Your task to perform on an android device: set the timer Image 0: 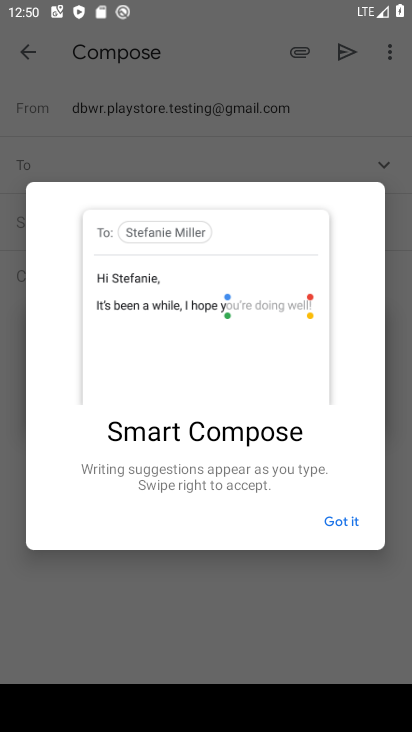
Step 0: press home button
Your task to perform on an android device: set the timer Image 1: 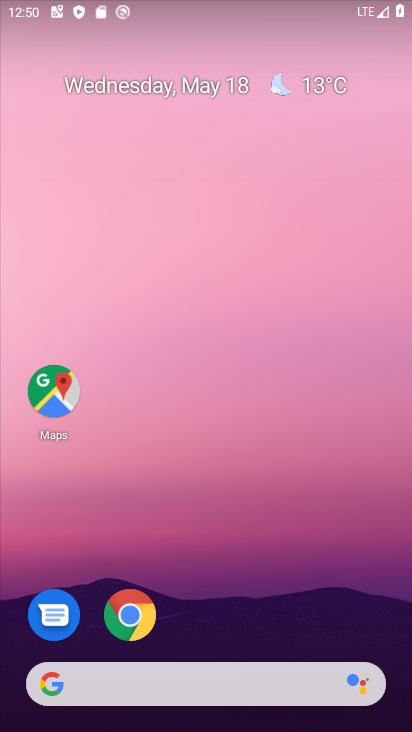
Step 1: drag from (190, 687) to (317, 193)
Your task to perform on an android device: set the timer Image 2: 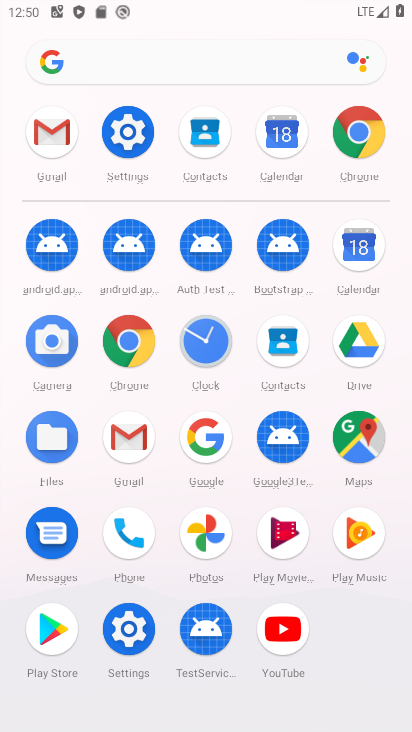
Step 2: click (203, 349)
Your task to perform on an android device: set the timer Image 3: 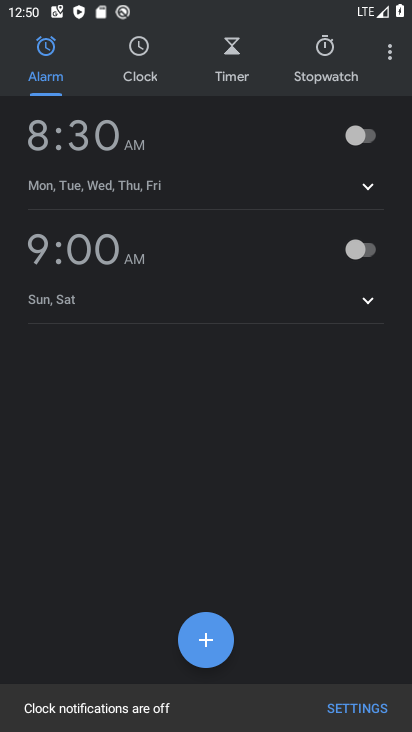
Step 3: click (235, 61)
Your task to perform on an android device: set the timer Image 4: 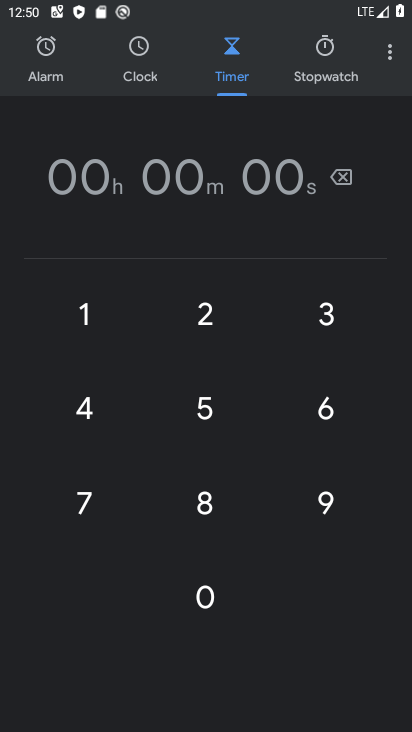
Step 4: click (202, 500)
Your task to perform on an android device: set the timer Image 5: 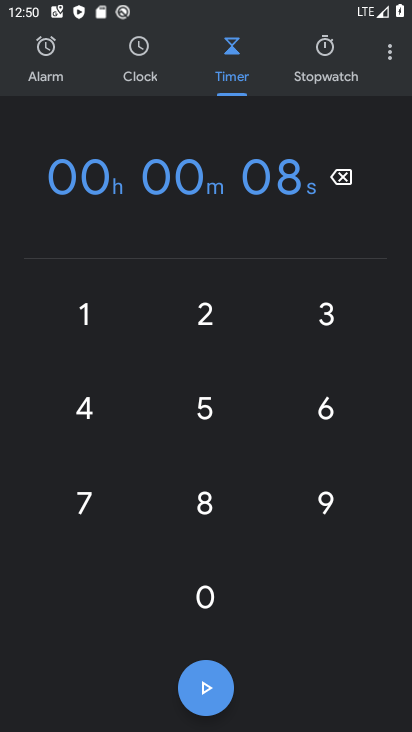
Step 5: click (95, 323)
Your task to perform on an android device: set the timer Image 6: 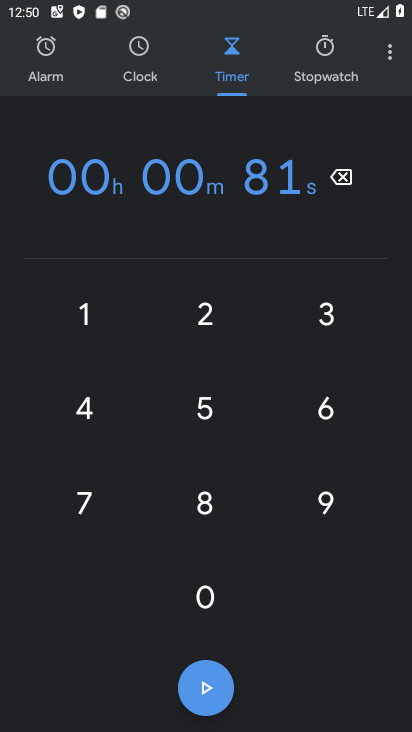
Step 6: click (207, 692)
Your task to perform on an android device: set the timer Image 7: 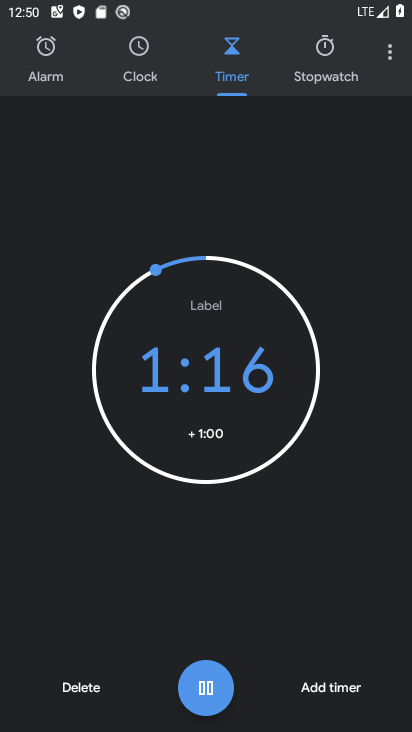
Step 7: click (204, 692)
Your task to perform on an android device: set the timer Image 8: 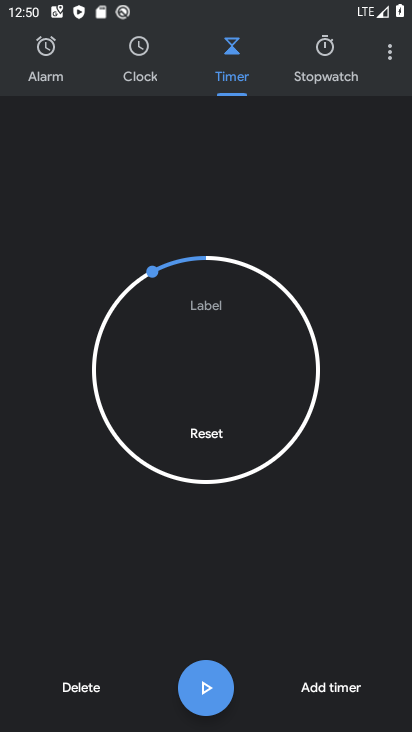
Step 8: task complete